Your task to perform on an android device: Open settings Image 0: 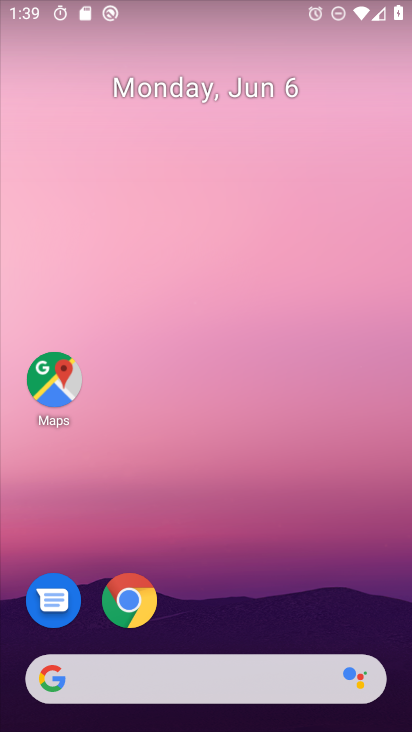
Step 0: drag from (226, 629) to (227, 222)
Your task to perform on an android device: Open settings Image 1: 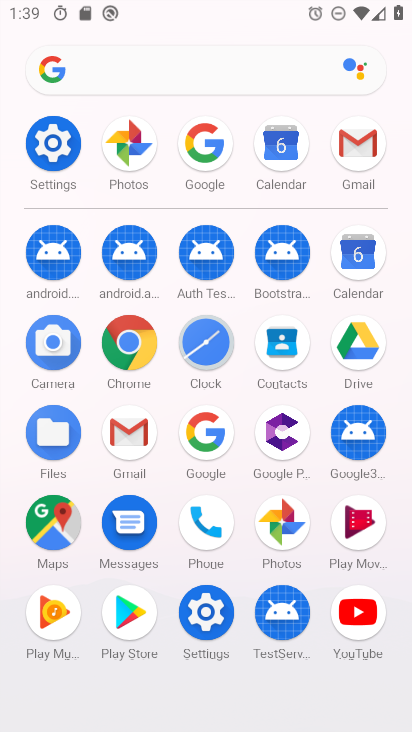
Step 1: click (75, 154)
Your task to perform on an android device: Open settings Image 2: 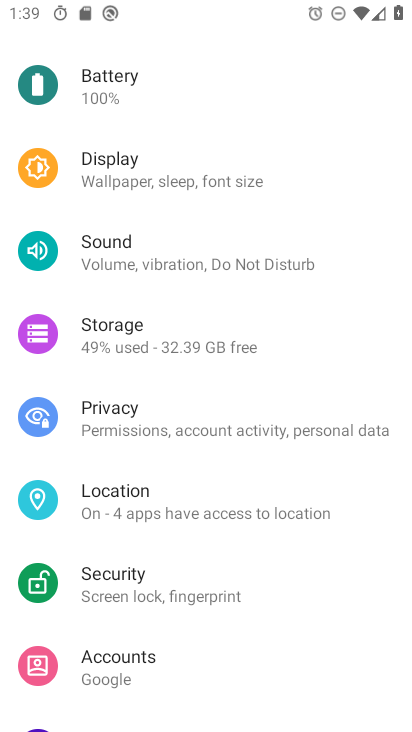
Step 2: task complete